Your task to perform on an android device: Set the phone to "Do not disturb". Image 0: 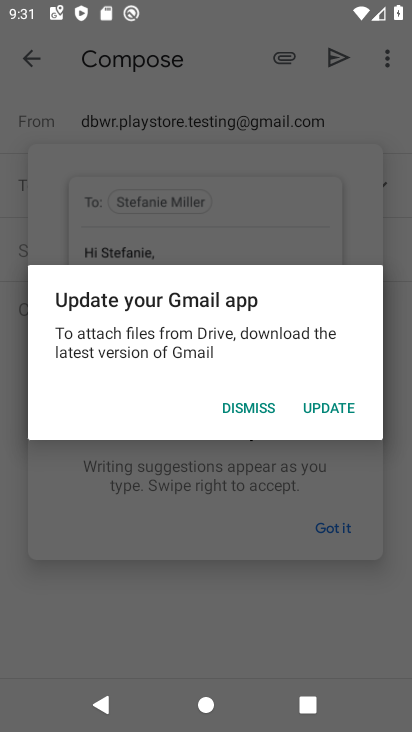
Step 0: press home button
Your task to perform on an android device: Set the phone to "Do not disturb". Image 1: 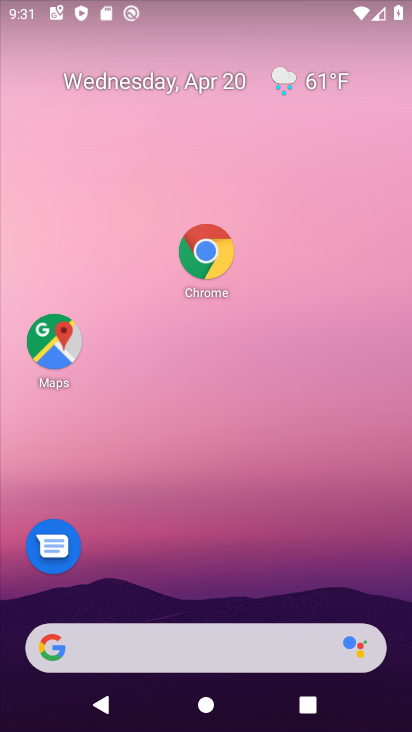
Step 1: drag from (189, 623) to (168, 170)
Your task to perform on an android device: Set the phone to "Do not disturb". Image 2: 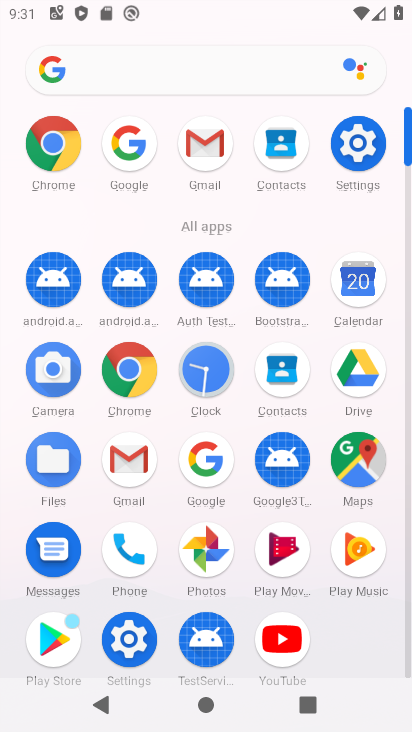
Step 2: click (350, 145)
Your task to perform on an android device: Set the phone to "Do not disturb". Image 3: 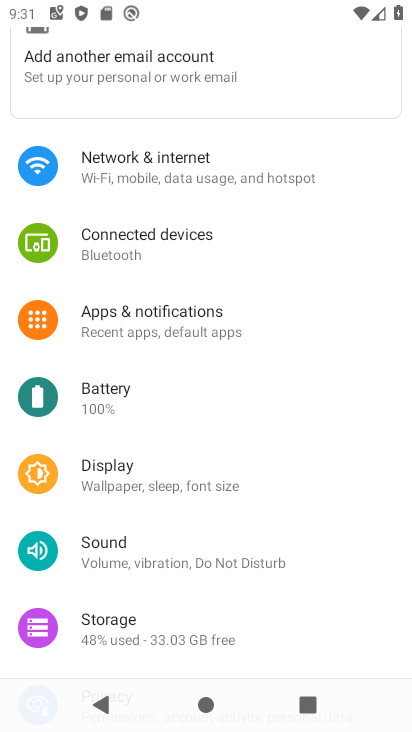
Step 3: click (175, 564)
Your task to perform on an android device: Set the phone to "Do not disturb". Image 4: 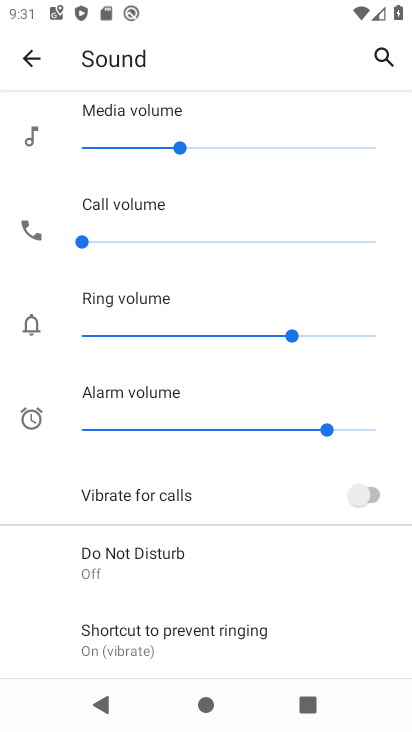
Step 4: drag from (170, 661) to (157, 354)
Your task to perform on an android device: Set the phone to "Do not disturb". Image 5: 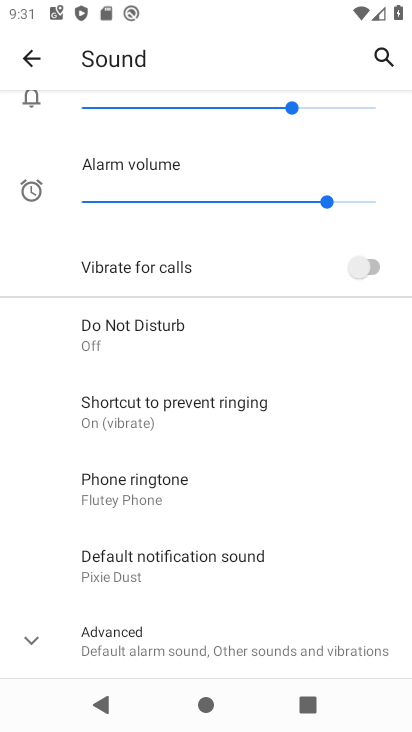
Step 5: click (115, 334)
Your task to perform on an android device: Set the phone to "Do not disturb". Image 6: 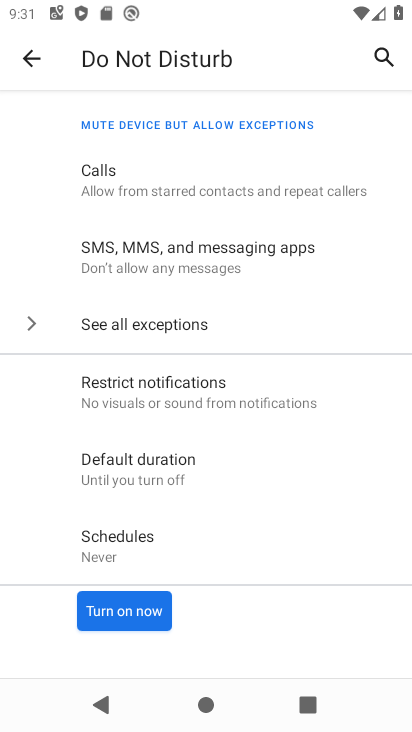
Step 6: click (126, 614)
Your task to perform on an android device: Set the phone to "Do not disturb". Image 7: 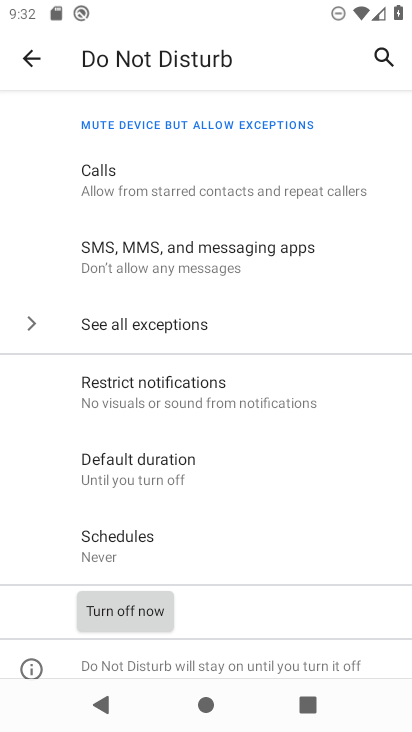
Step 7: task complete